Your task to perform on an android device: open a new tab in the chrome app Image 0: 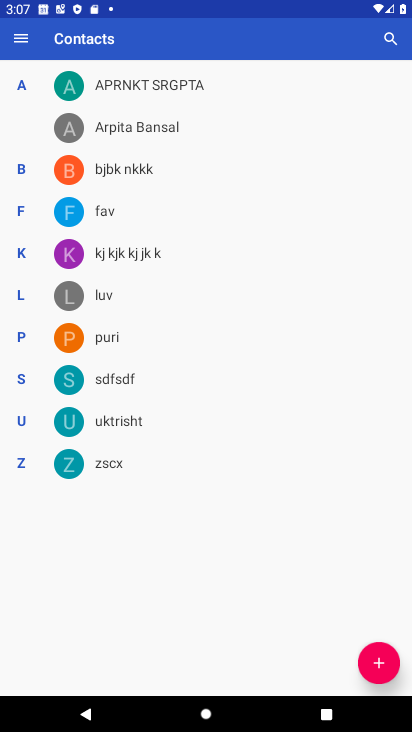
Step 0: press home button
Your task to perform on an android device: open a new tab in the chrome app Image 1: 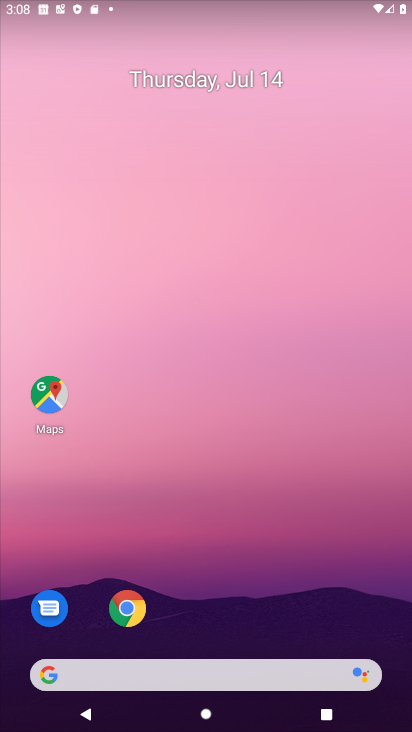
Step 1: click (125, 612)
Your task to perform on an android device: open a new tab in the chrome app Image 2: 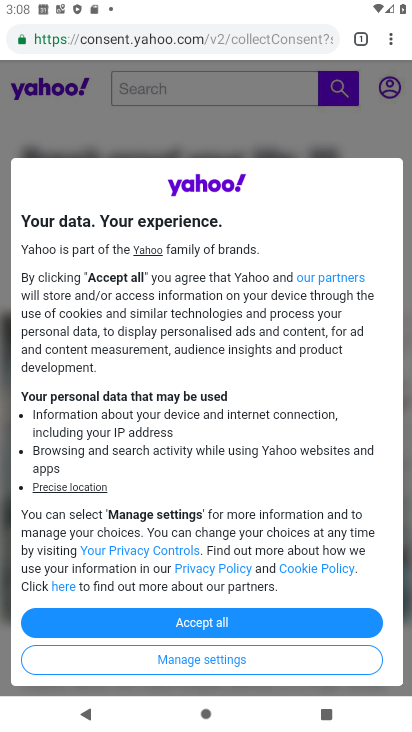
Step 2: click (392, 31)
Your task to perform on an android device: open a new tab in the chrome app Image 3: 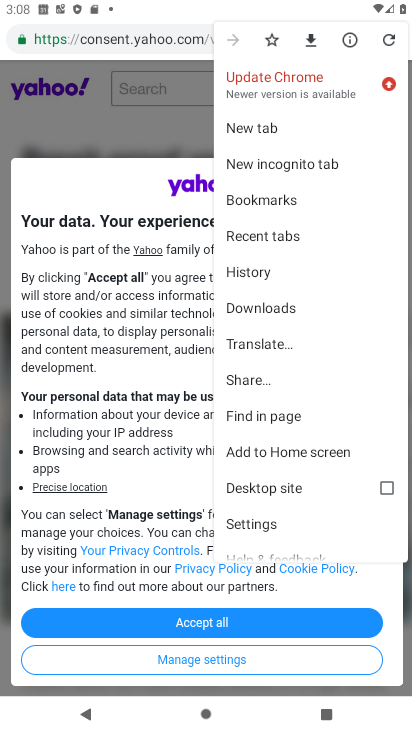
Step 3: click (247, 130)
Your task to perform on an android device: open a new tab in the chrome app Image 4: 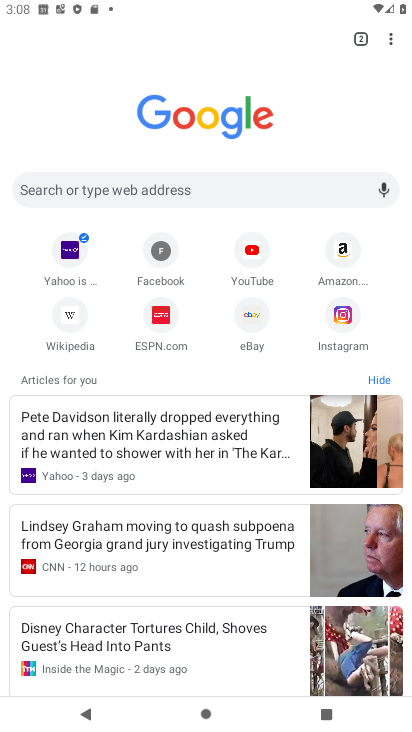
Step 4: task complete